Your task to perform on an android device: Open Google Chrome Image 0: 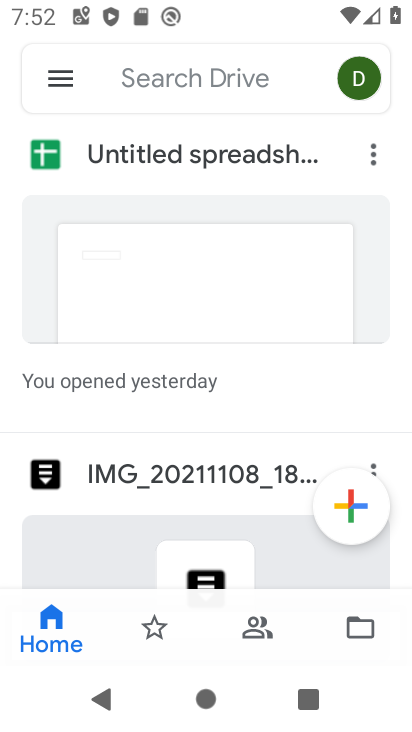
Step 0: press home button
Your task to perform on an android device: Open Google Chrome Image 1: 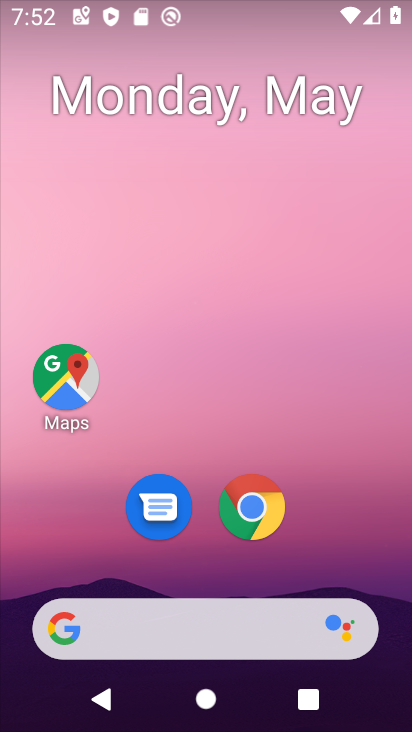
Step 1: click (248, 498)
Your task to perform on an android device: Open Google Chrome Image 2: 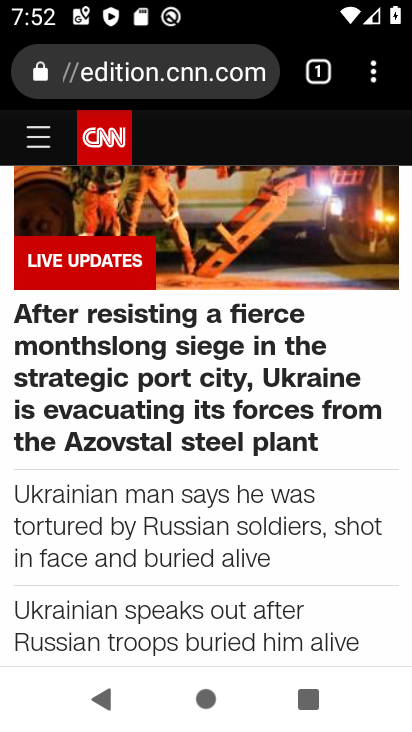
Step 2: click (322, 73)
Your task to perform on an android device: Open Google Chrome Image 3: 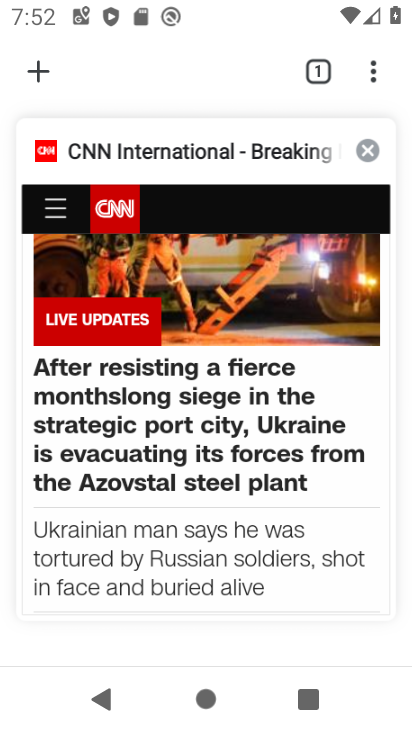
Step 3: click (366, 145)
Your task to perform on an android device: Open Google Chrome Image 4: 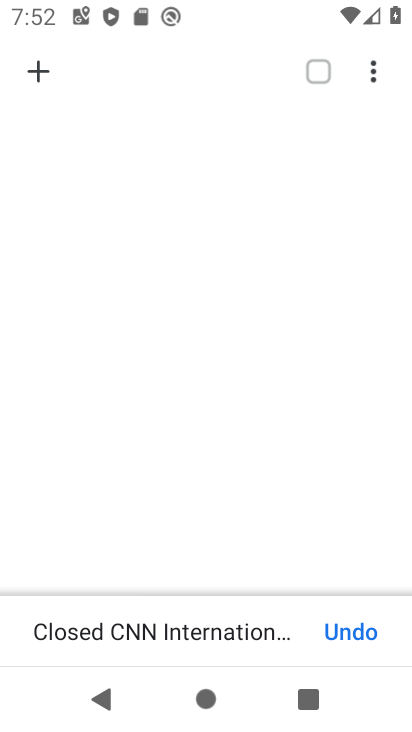
Step 4: click (50, 68)
Your task to perform on an android device: Open Google Chrome Image 5: 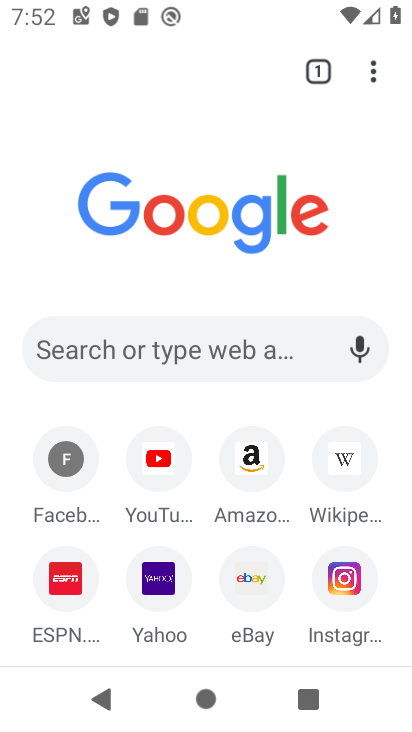
Step 5: task complete